Your task to perform on an android device: toggle priority inbox in the gmail app Image 0: 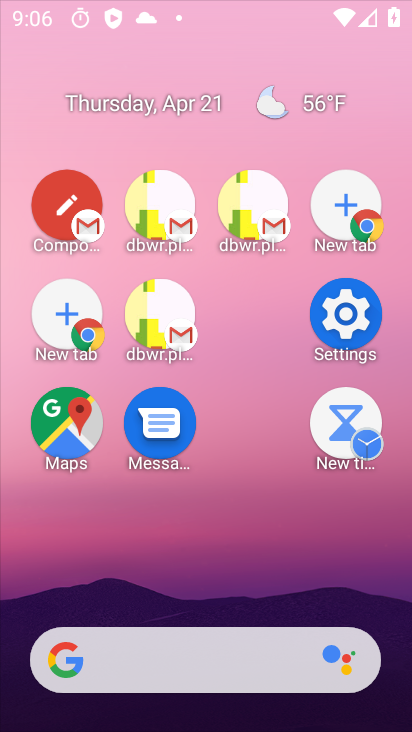
Step 0: press home button
Your task to perform on an android device: toggle priority inbox in the gmail app Image 1: 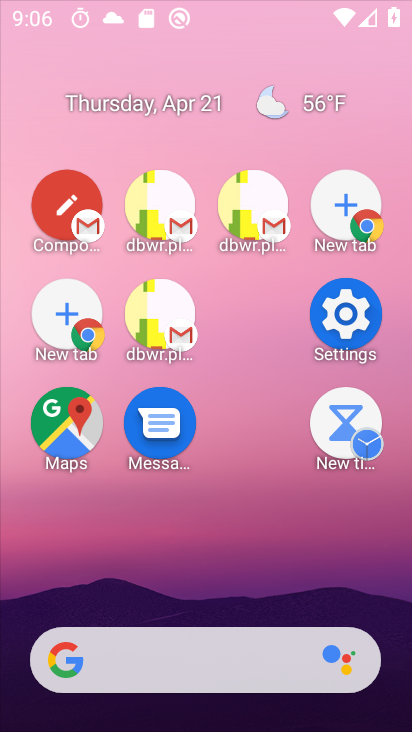
Step 1: drag from (318, 600) to (129, 42)
Your task to perform on an android device: toggle priority inbox in the gmail app Image 2: 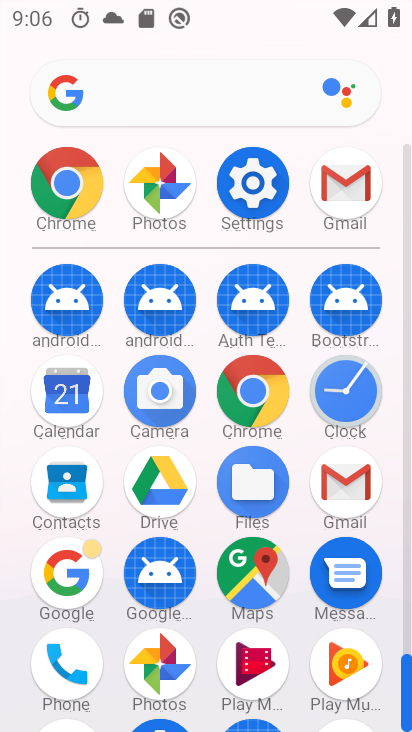
Step 2: drag from (268, 477) to (171, 132)
Your task to perform on an android device: toggle priority inbox in the gmail app Image 3: 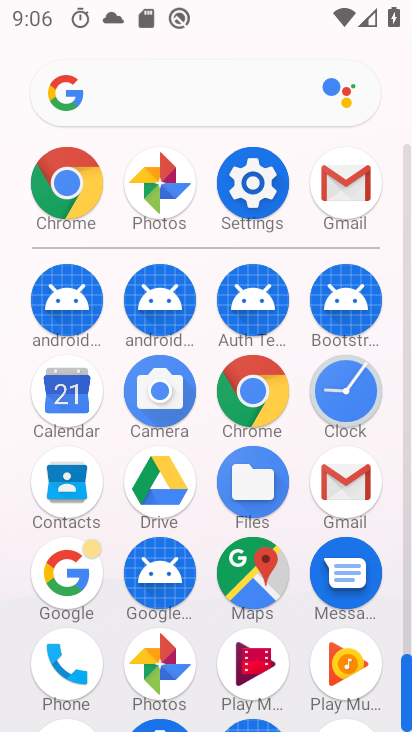
Step 3: click (342, 482)
Your task to perform on an android device: toggle priority inbox in the gmail app Image 4: 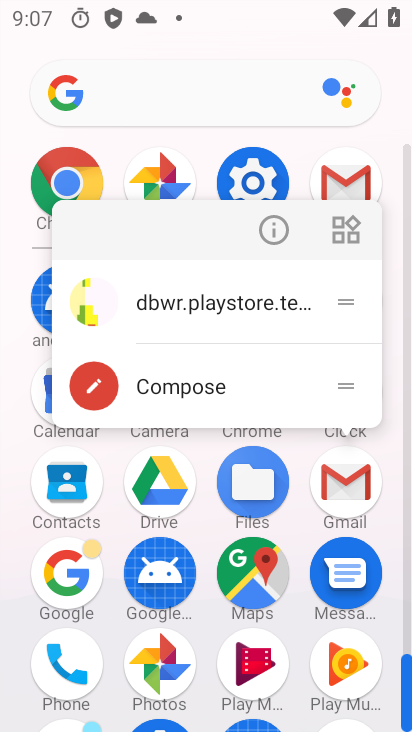
Step 4: click (357, 474)
Your task to perform on an android device: toggle priority inbox in the gmail app Image 5: 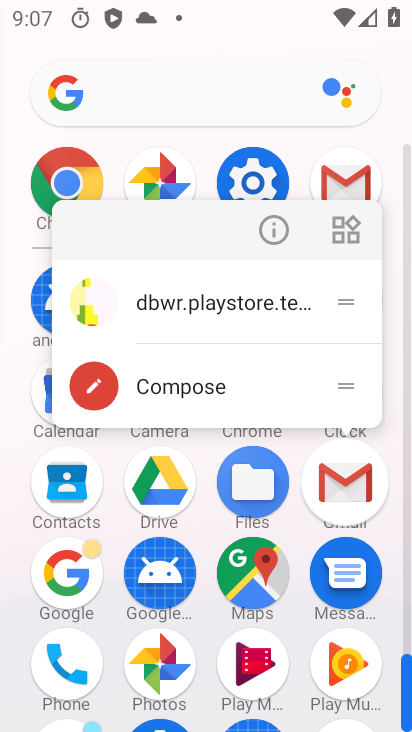
Step 5: click (357, 482)
Your task to perform on an android device: toggle priority inbox in the gmail app Image 6: 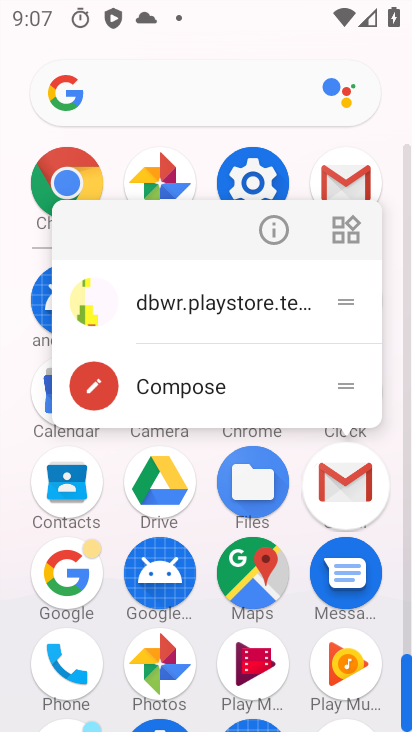
Step 6: click (358, 486)
Your task to perform on an android device: toggle priority inbox in the gmail app Image 7: 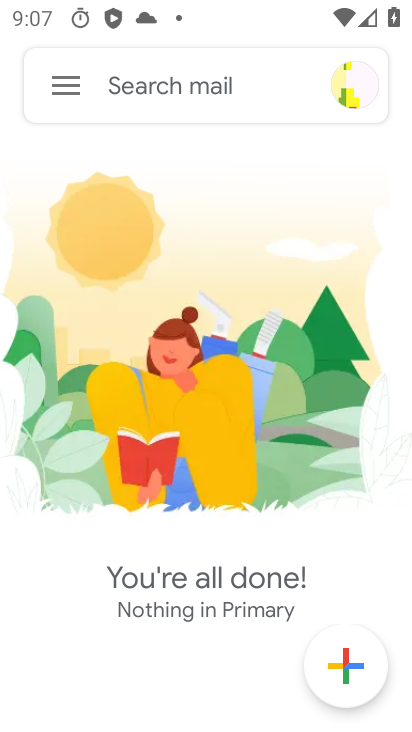
Step 7: click (67, 78)
Your task to perform on an android device: toggle priority inbox in the gmail app Image 8: 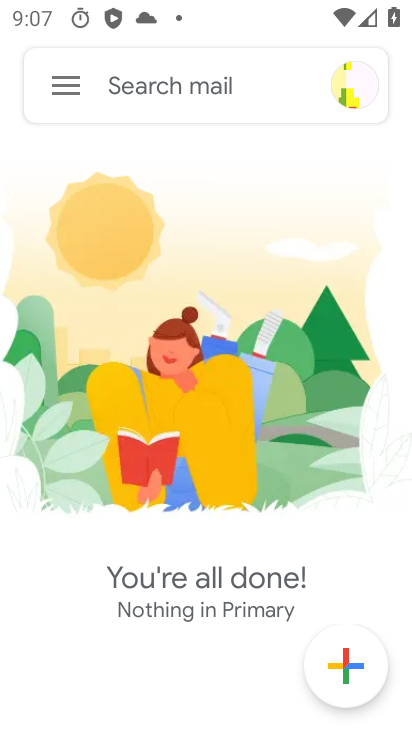
Step 8: click (61, 84)
Your task to perform on an android device: toggle priority inbox in the gmail app Image 9: 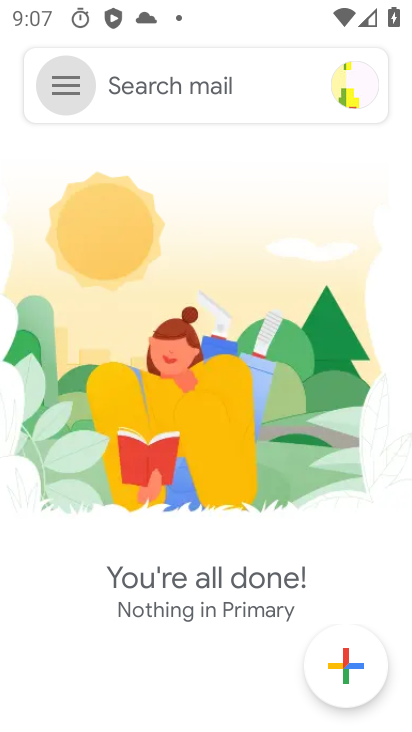
Step 9: click (65, 84)
Your task to perform on an android device: toggle priority inbox in the gmail app Image 10: 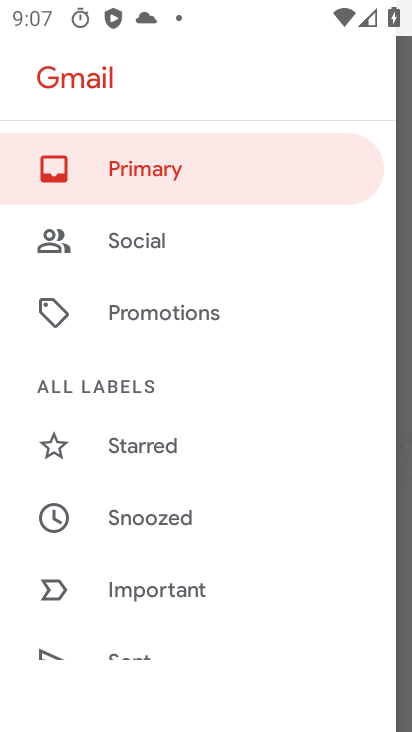
Step 10: drag from (152, 545) to (164, 177)
Your task to perform on an android device: toggle priority inbox in the gmail app Image 11: 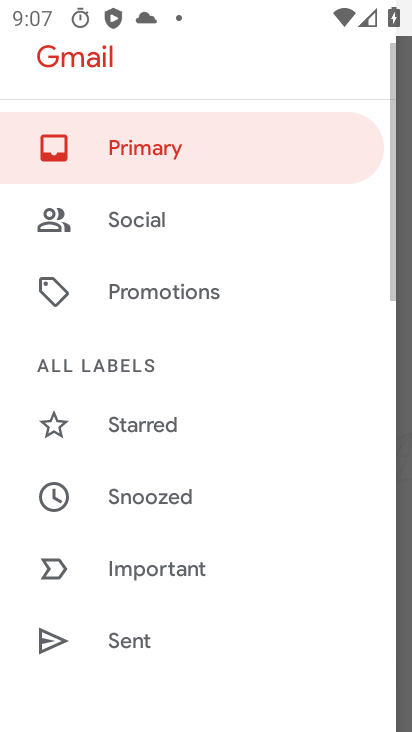
Step 11: drag from (189, 478) to (168, 154)
Your task to perform on an android device: toggle priority inbox in the gmail app Image 12: 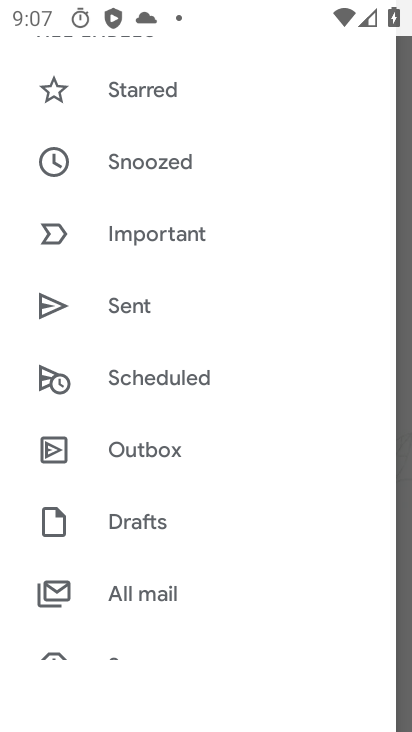
Step 12: drag from (138, 479) to (140, 100)
Your task to perform on an android device: toggle priority inbox in the gmail app Image 13: 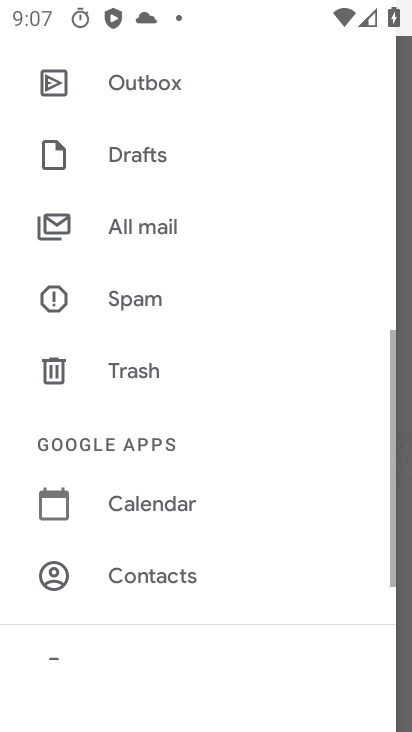
Step 13: drag from (192, 472) to (176, 41)
Your task to perform on an android device: toggle priority inbox in the gmail app Image 14: 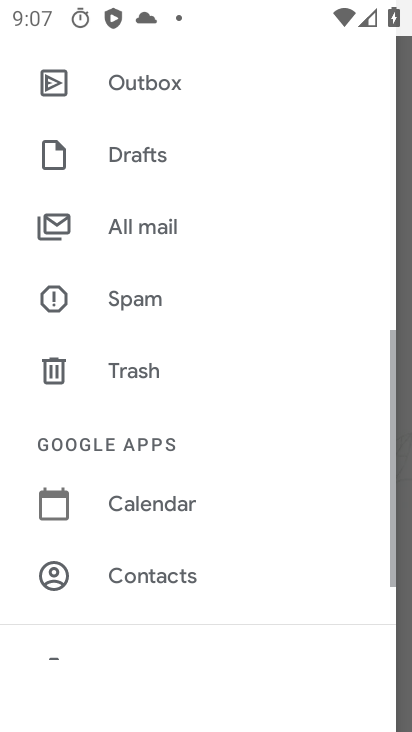
Step 14: drag from (145, 498) to (131, 2)
Your task to perform on an android device: toggle priority inbox in the gmail app Image 15: 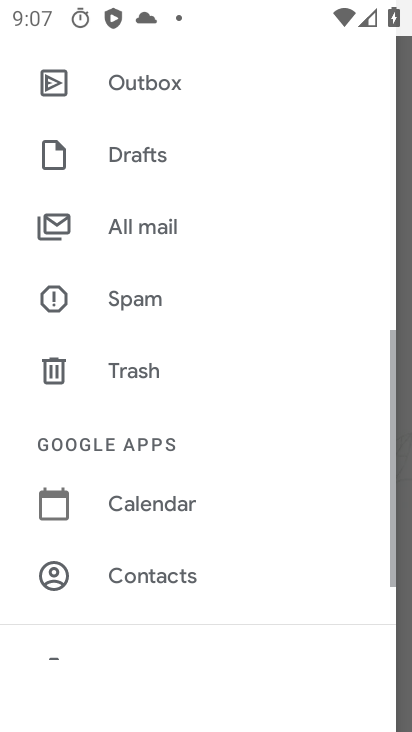
Step 15: drag from (144, 540) to (121, 144)
Your task to perform on an android device: toggle priority inbox in the gmail app Image 16: 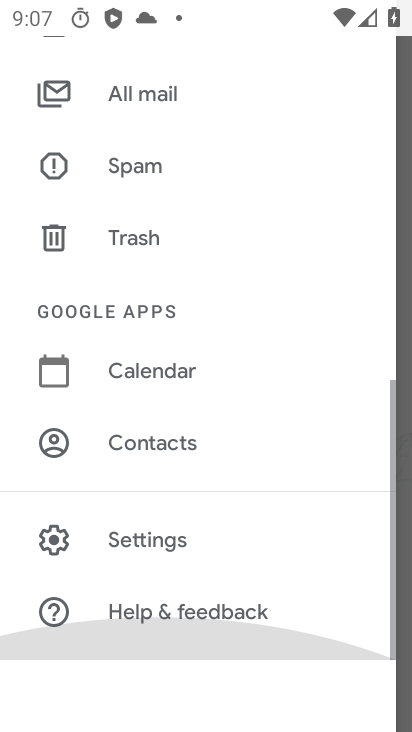
Step 16: drag from (182, 380) to (182, 46)
Your task to perform on an android device: toggle priority inbox in the gmail app Image 17: 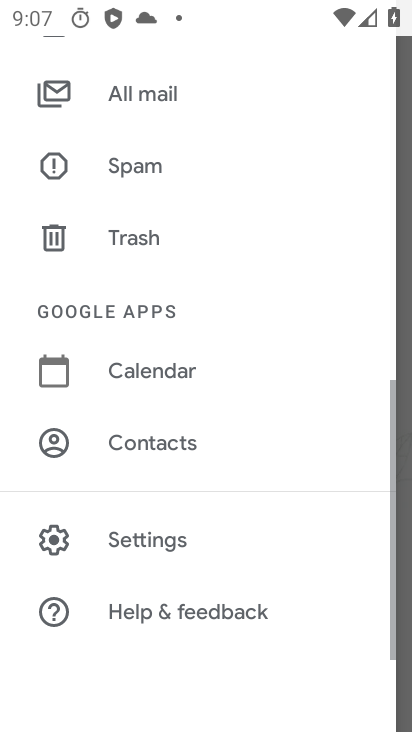
Step 17: click (141, 537)
Your task to perform on an android device: toggle priority inbox in the gmail app Image 18: 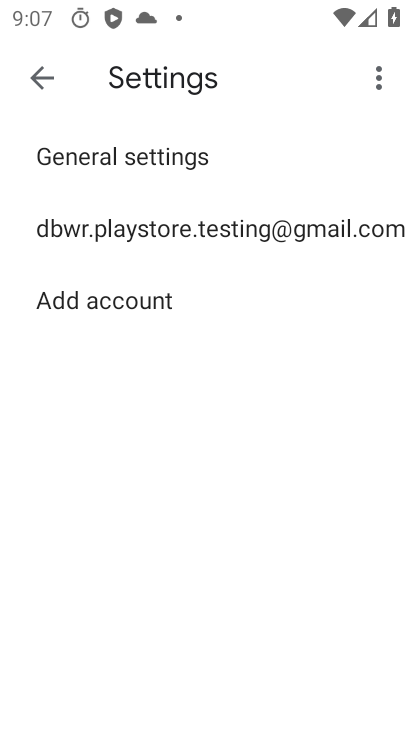
Step 18: click (137, 233)
Your task to perform on an android device: toggle priority inbox in the gmail app Image 19: 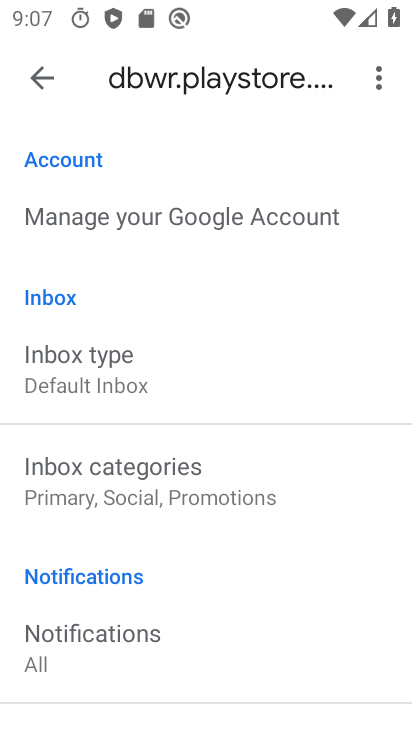
Step 19: click (79, 379)
Your task to perform on an android device: toggle priority inbox in the gmail app Image 20: 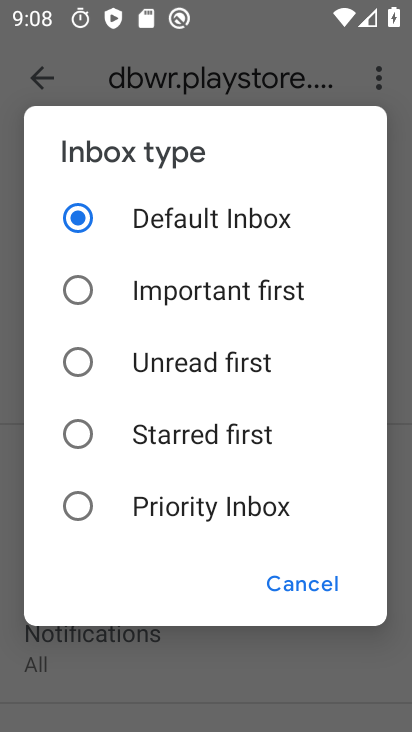
Step 20: click (67, 496)
Your task to perform on an android device: toggle priority inbox in the gmail app Image 21: 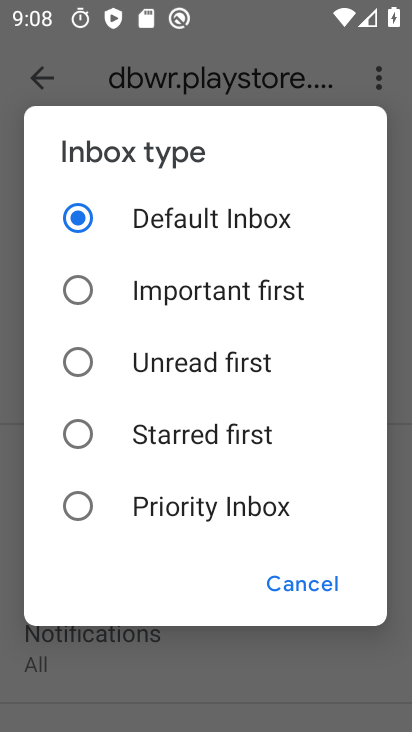
Step 21: click (80, 506)
Your task to perform on an android device: toggle priority inbox in the gmail app Image 22: 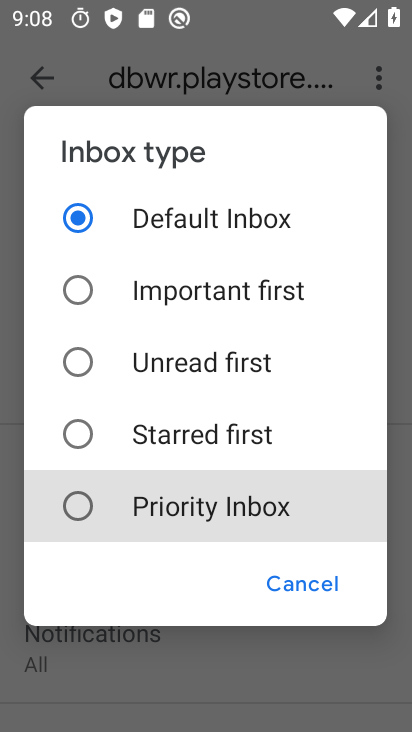
Step 22: click (80, 506)
Your task to perform on an android device: toggle priority inbox in the gmail app Image 23: 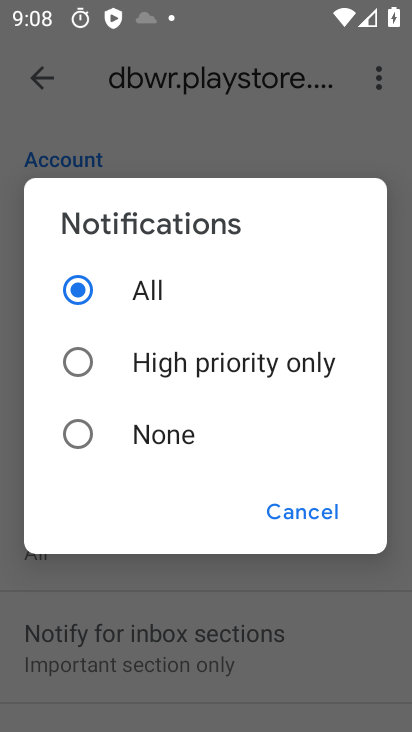
Step 23: click (284, 510)
Your task to perform on an android device: toggle priority inbox in the gmail app Image 24: 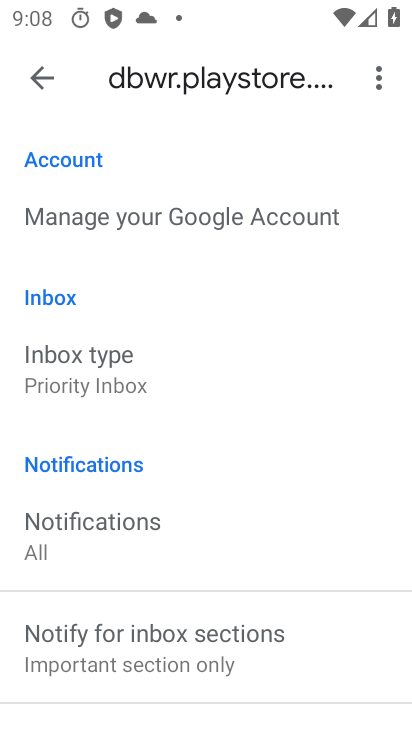
Step 24: task complete